Your task to perform on an android device: delete the emails in spam in the gmail app Image 0: 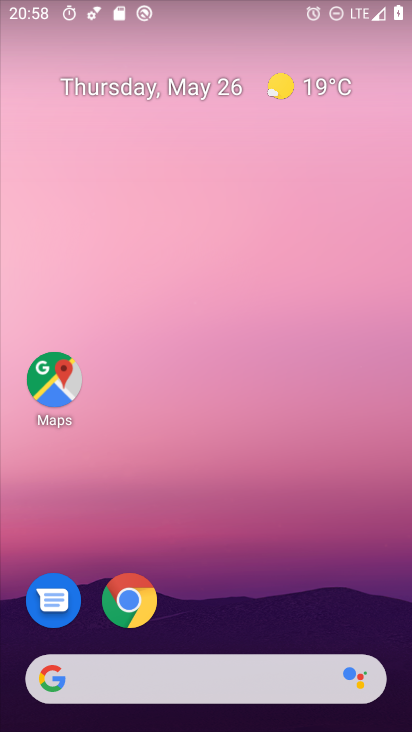
Step 0: press home button
Your task to perform on an android device: delete the emails in spam in the gmail app Image 1: 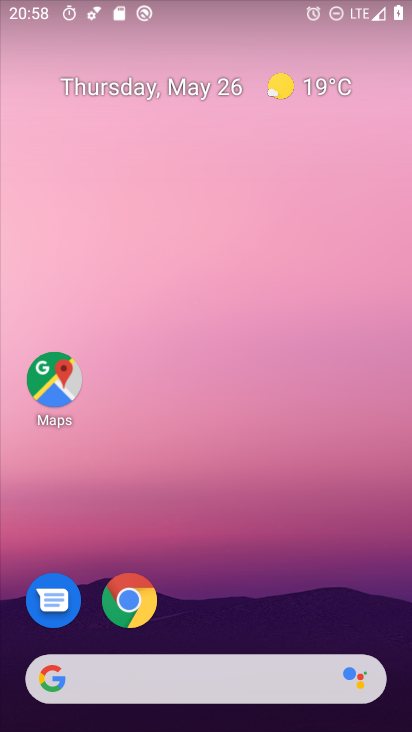
Step 1: drag from (253, 627) to (226, 163)
Your task to perform on an android device: delete the emails in spam in the gmail app Image 2: 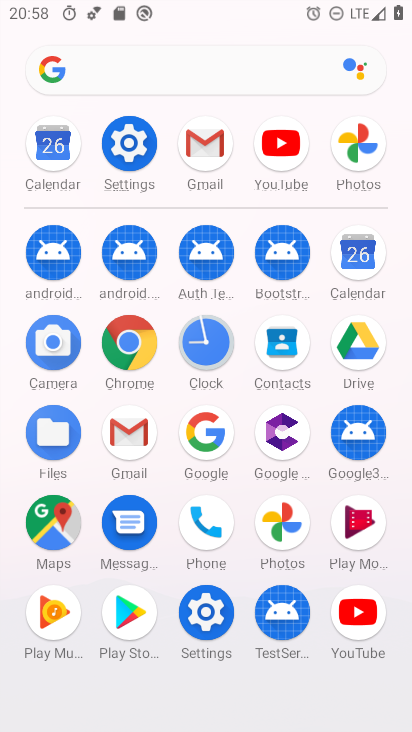
Step 2: click (207, 166)
Your task to perform on an android device: delete the emails in spam in the gmail app Image 3: 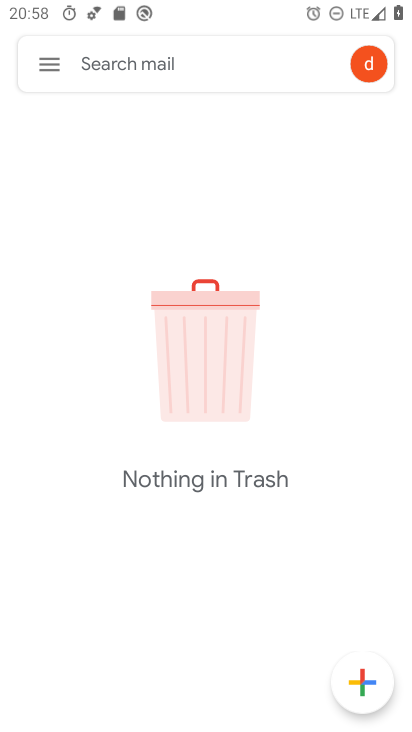
Step 3: click (51, 61)
Your task to perform on an android device: delete the emails in spam in the gmail app Image 4: 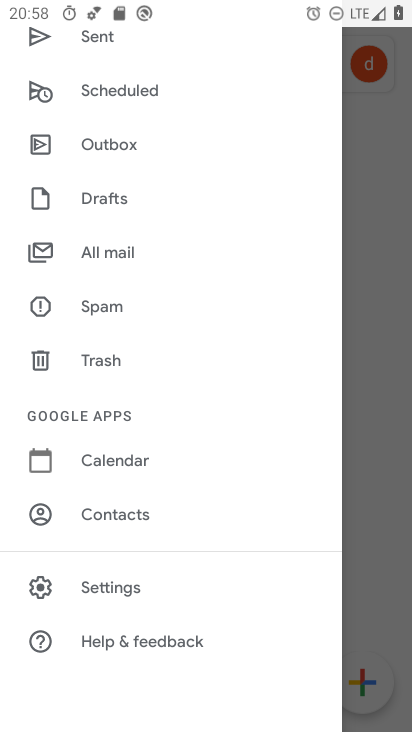
Step 4: click (113, 311)
Your task to perform on an android device: delete the emails in spam in the gmail app Image 5: 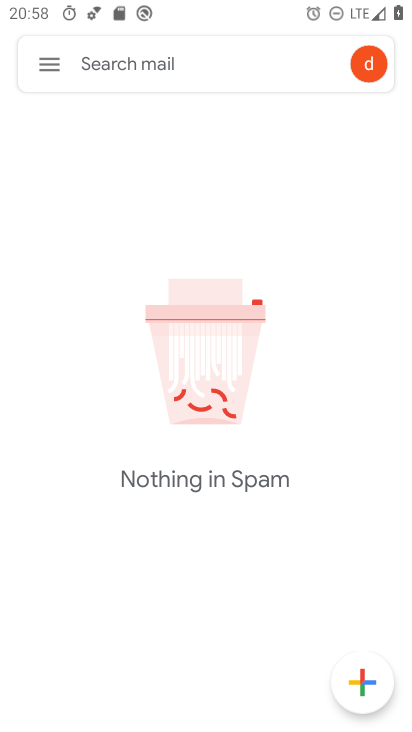
Step 5: task complete